Your task to perform on an android device: change alarm snooze length Image 0: 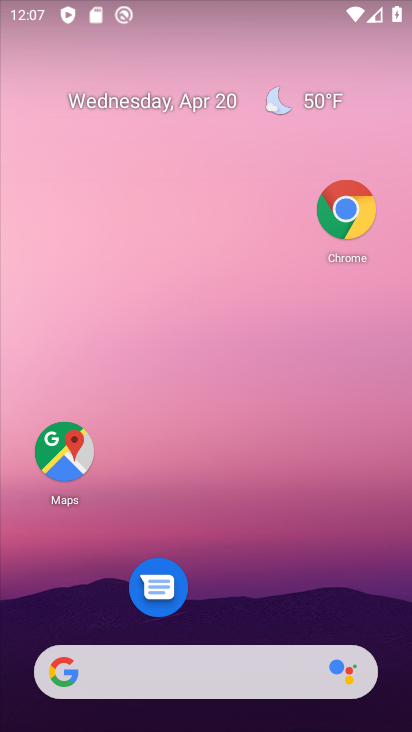
Step 0: drag from (232, 607) to (271, 35)
Your task to perform on an android device: change alarm snooze length Image 1: 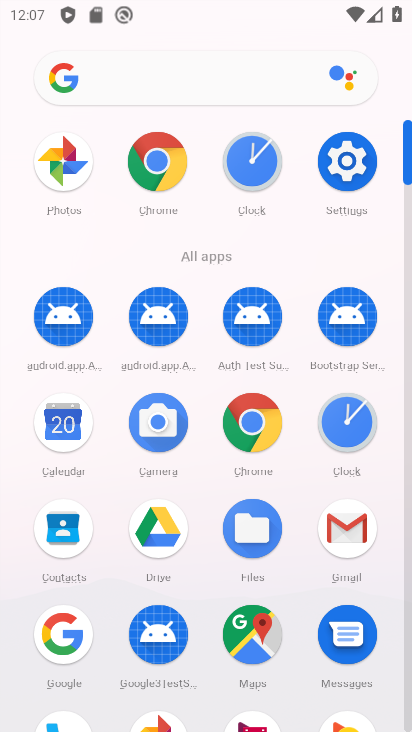
Step 1: click (352, 419)
Your task to perform on an android device: change alarm snooze length Image 2: 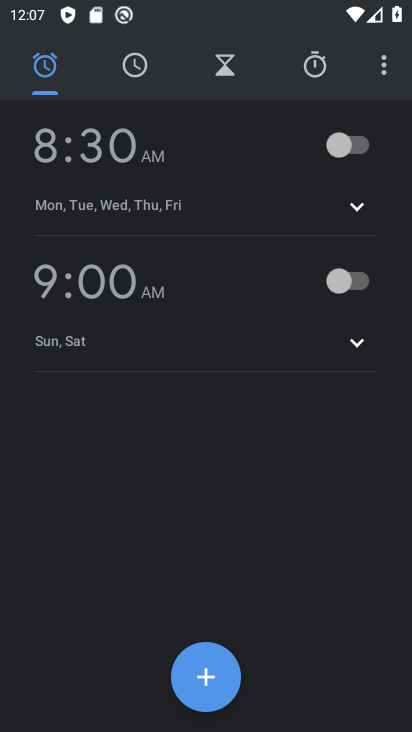
Step 2: click (389, 70)
Your task to perform on an android device: change alarm snooze length Image 3: 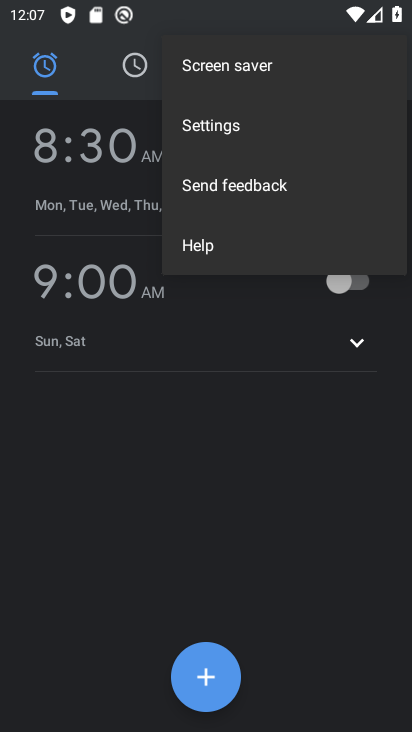
Step 3: click (232, 128)
Your task to perform on an android device: change alarm snooze length Image 4: 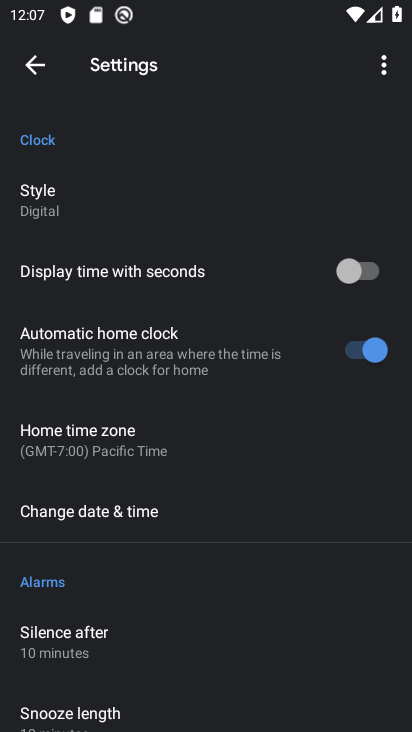
Step 4: drag from (170, 508) to (234, 117)
Your task to perform on an android device: change alarm snooze length Image 5: 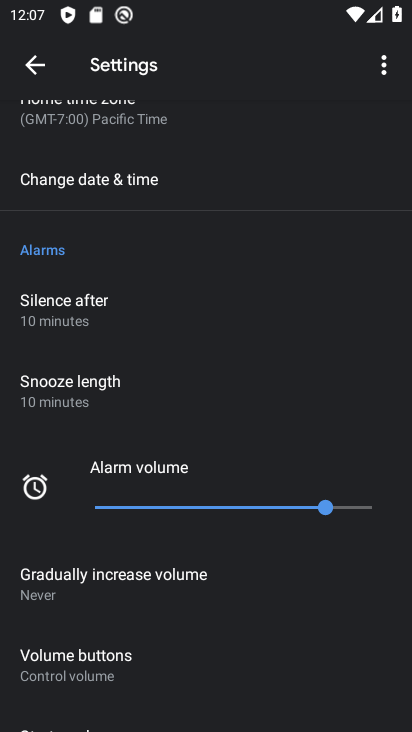
Step 5: drag from (189, 538) to (205, 251)
Your task to perform on an android device: change alarm snooze length Image 6: 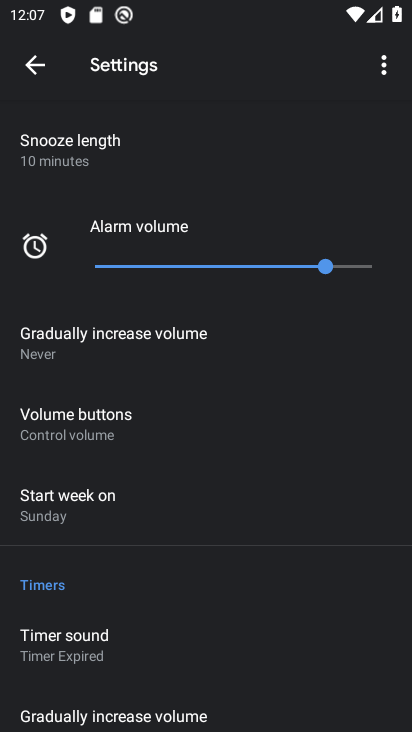
Step 6: click (77, 142)
Your task to perform on an android device: change alarm snooze length Image 7: 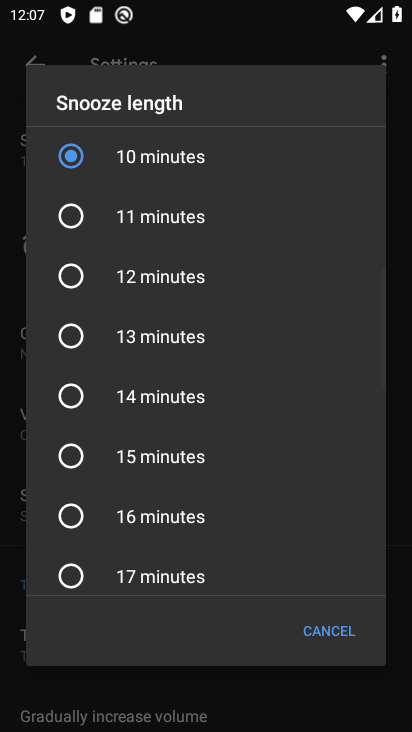
Step 7: click (81, 340)
Your task to perform on an android device: change alarm snooze length Image 8: 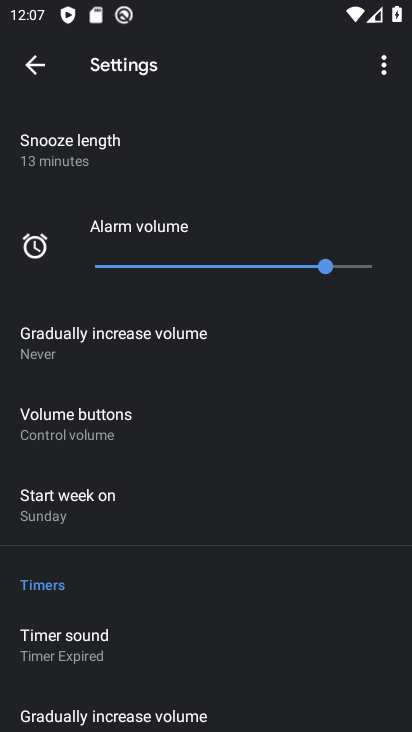
Step 8: task complete